Your task to perform on an android device: Set the phone to "Do not disturb". Image 0: 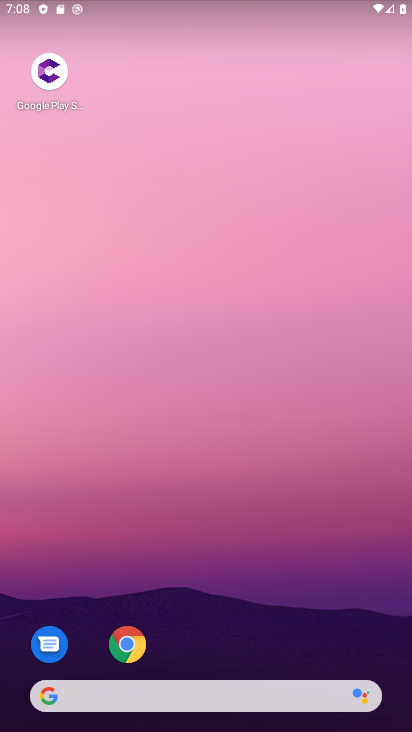
Step 0: drag from (296, 569) to (225, 90)
Your task to perform on an android device: Set the phone to "Do not disturb". Image 1: 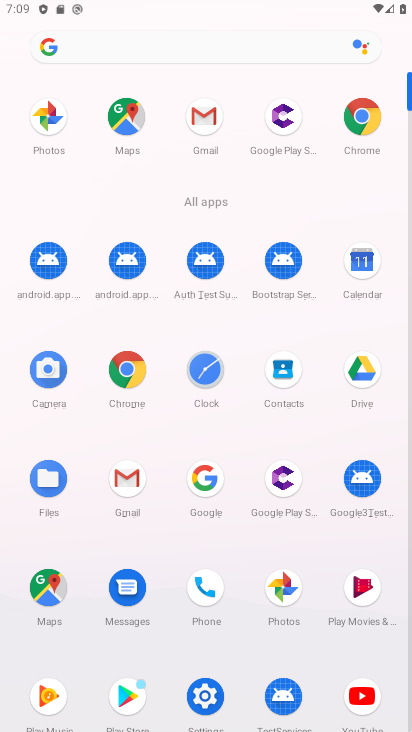
Step 1: click (207, 695)
Your task to perform on an android device: Set the phone to "Do not disturb". Image 2: 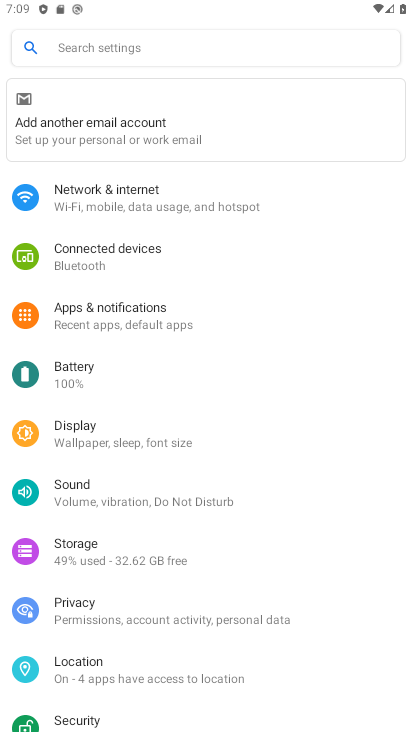
Step 2: click (73, 486)
Your task to perform on an android device: Set the phone to "Do not disturb". Image 3: 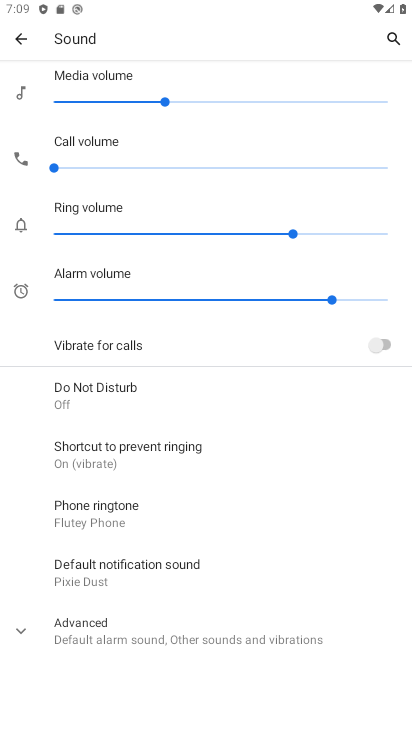
Step 3: click (86, 389)
Your task to perform on an android device: Set the phone to "Do not disturb". Image 4: 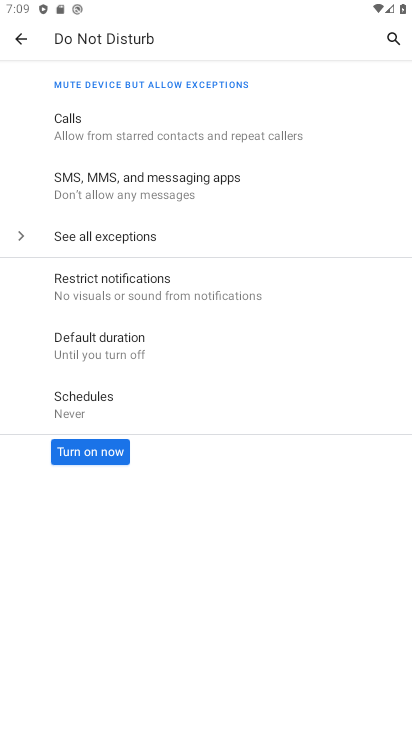
Step 4: click (69, 455)
Your task to perform on an android device: Set the phone to "Do not disturb". Image 5: 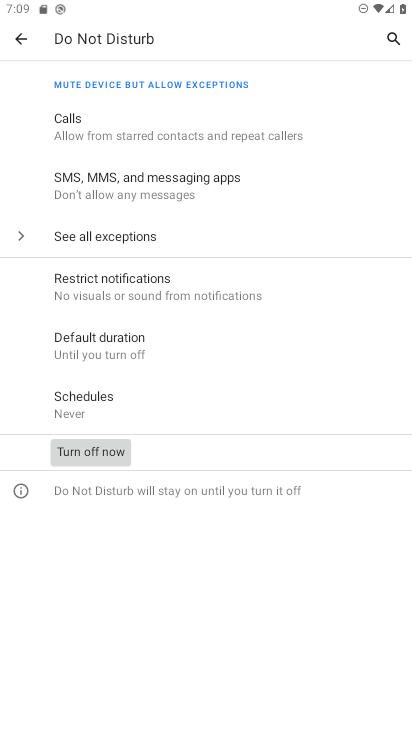
Step 5: task complete